Your task to perform on an android device: toggle notification dots Image 0: 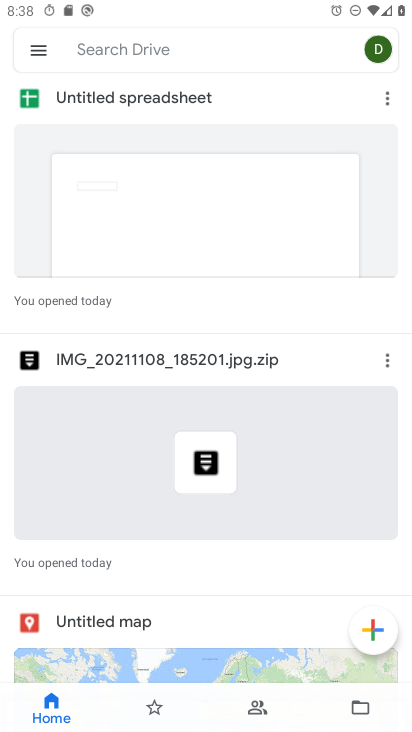
Step 0: press home button
Your task to perform on an android device: toggle notification dots Image 1: 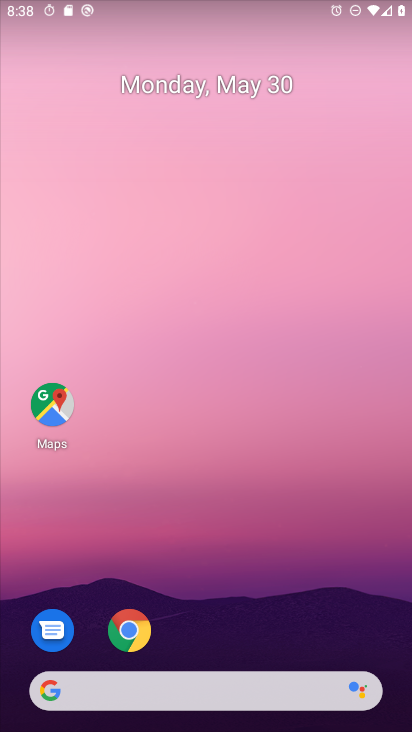
Step 1: drag from (328, 613) to (335, 20)
Your task to perform on an android device: toggle notification dots Image 2: 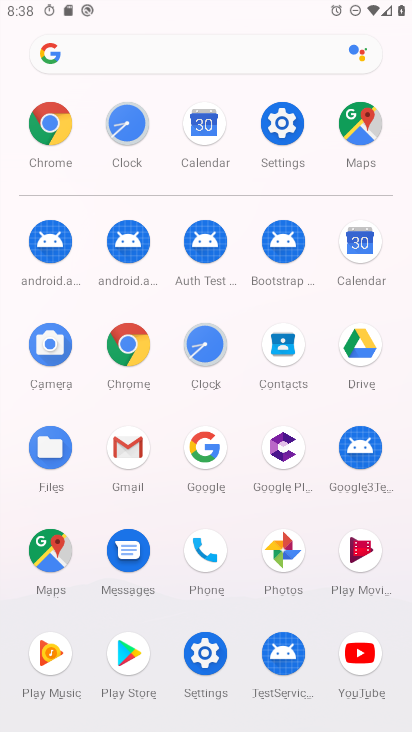
Step 2: click (276, 115)
Your task to perform on an android device: toggle notification dots Image 3: 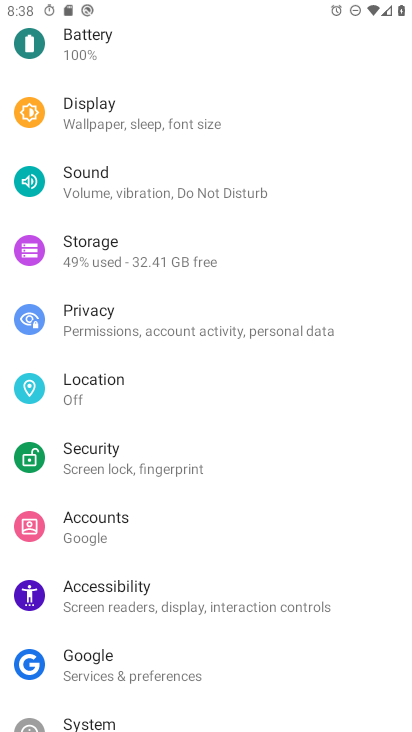
Step 3: drag from (256, 116) to (206, 649)
Your task to perform on an android device: toggle notification dots Image 4: 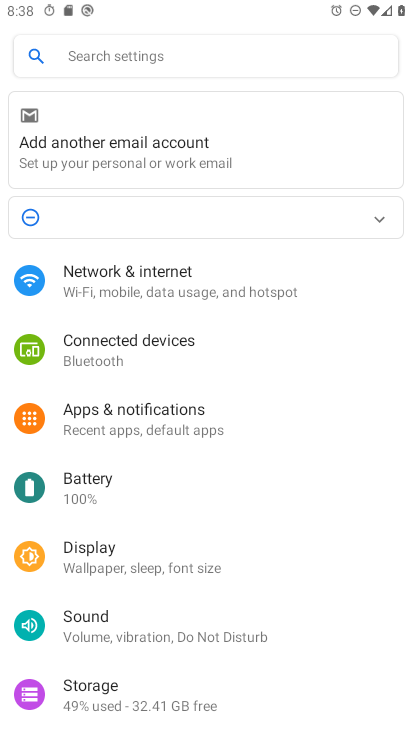
Step 4: click (202, 419)
Your task to perform on an android device: toggle notification dots Image 5: 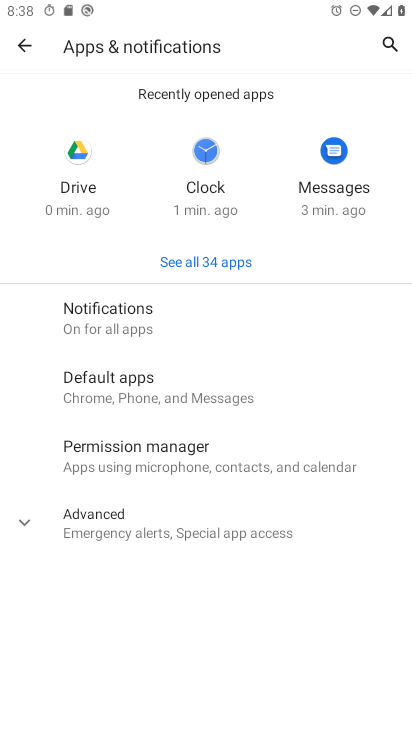
Step 5: click (161, 334)
Your task to perform on an android device: toggle notification dots Image 6: 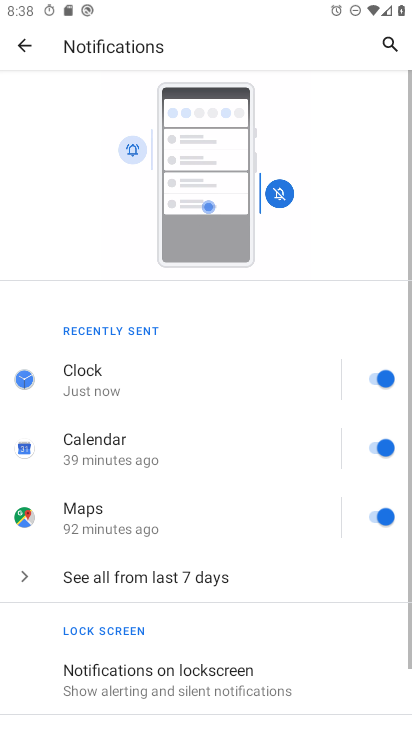
Step 6: drag from (149, 670) to (193, 26)
Your task to perform on an android device: toggle notification dots Image 7: 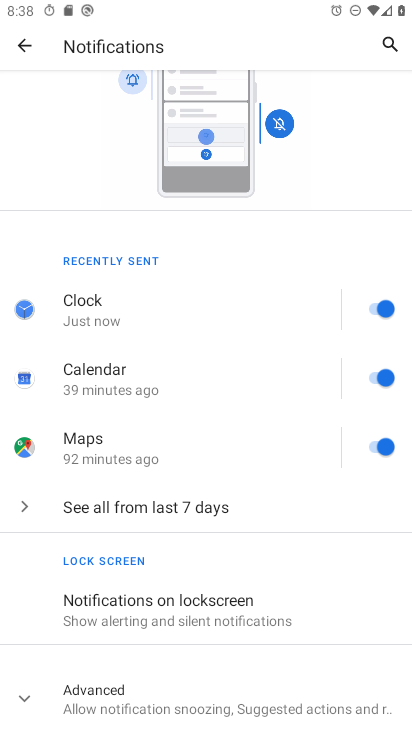
Step 7: click (134, 705)
Your task to perform on an android device: toggle notification dots Image 8: 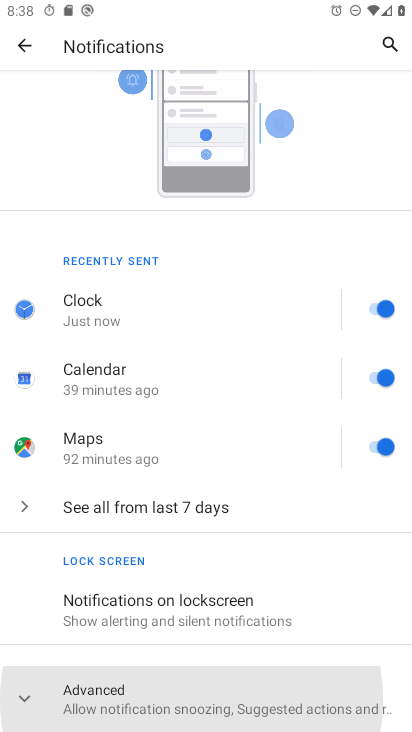
Step 8: drag from (134, 705) to (230, 165)
Your task to perform on an android device: toggle notification dots Image 9: 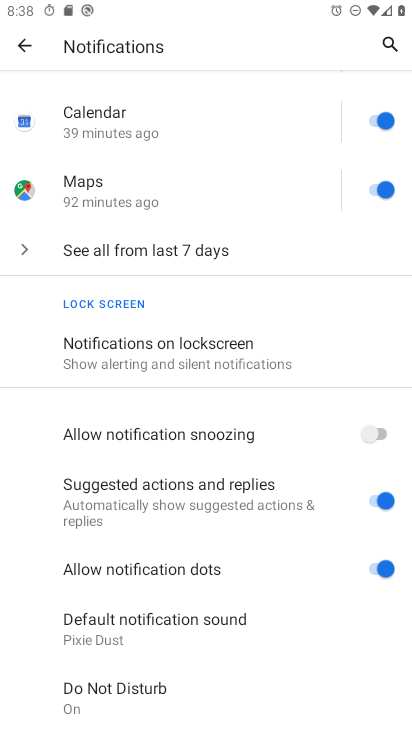
Step 9: click (261, 579)
Your task to perform on an android device: toggle notification dots Image 10: 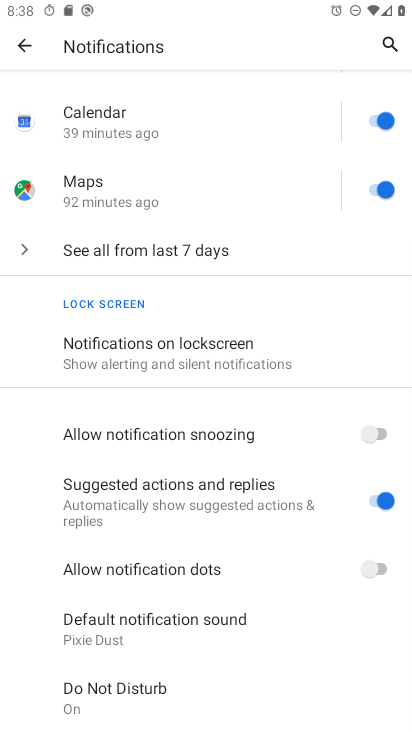
Step 10: task complete